Your task to perform on an android device: What's the weather? Image 0: 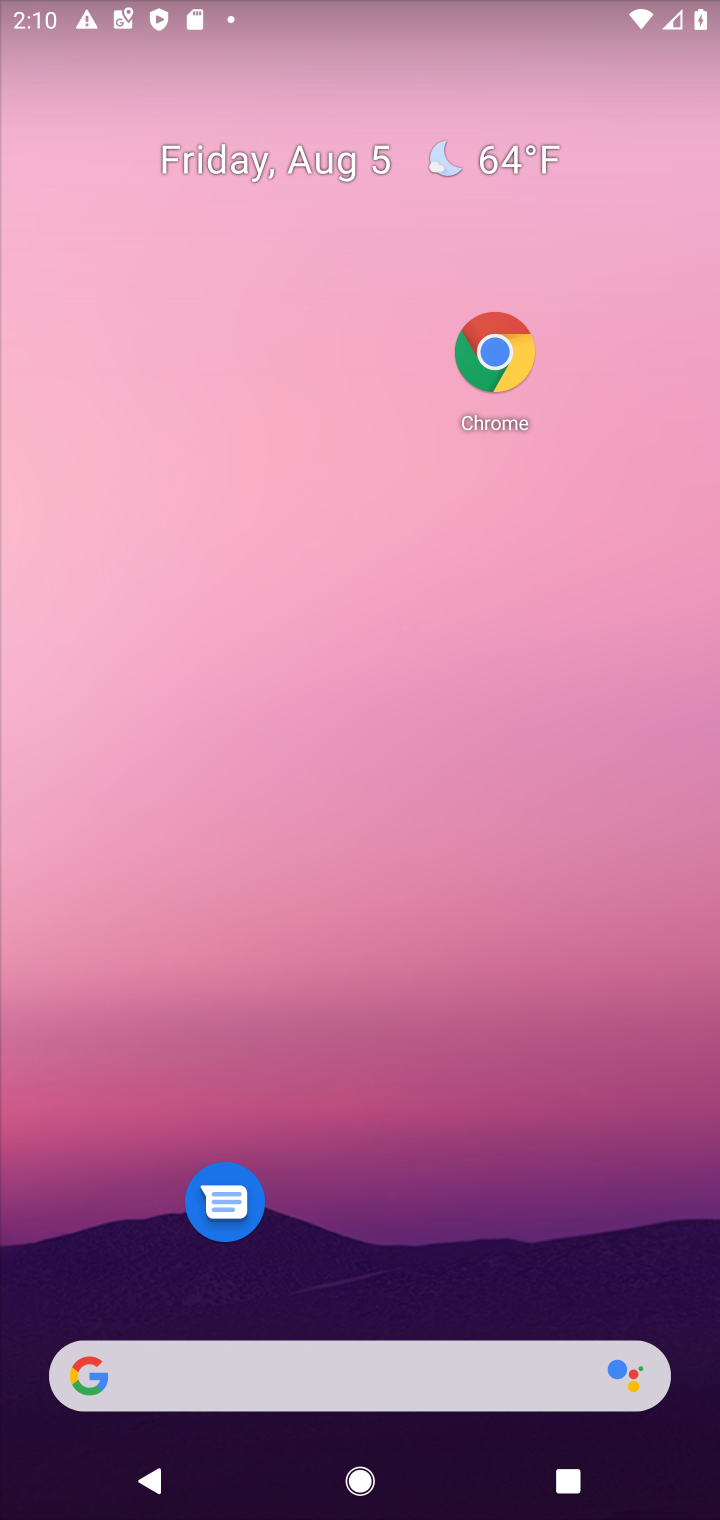
Step 0: click (510, 156)
Your task to perform on an android device: What's the weather? Image 1: 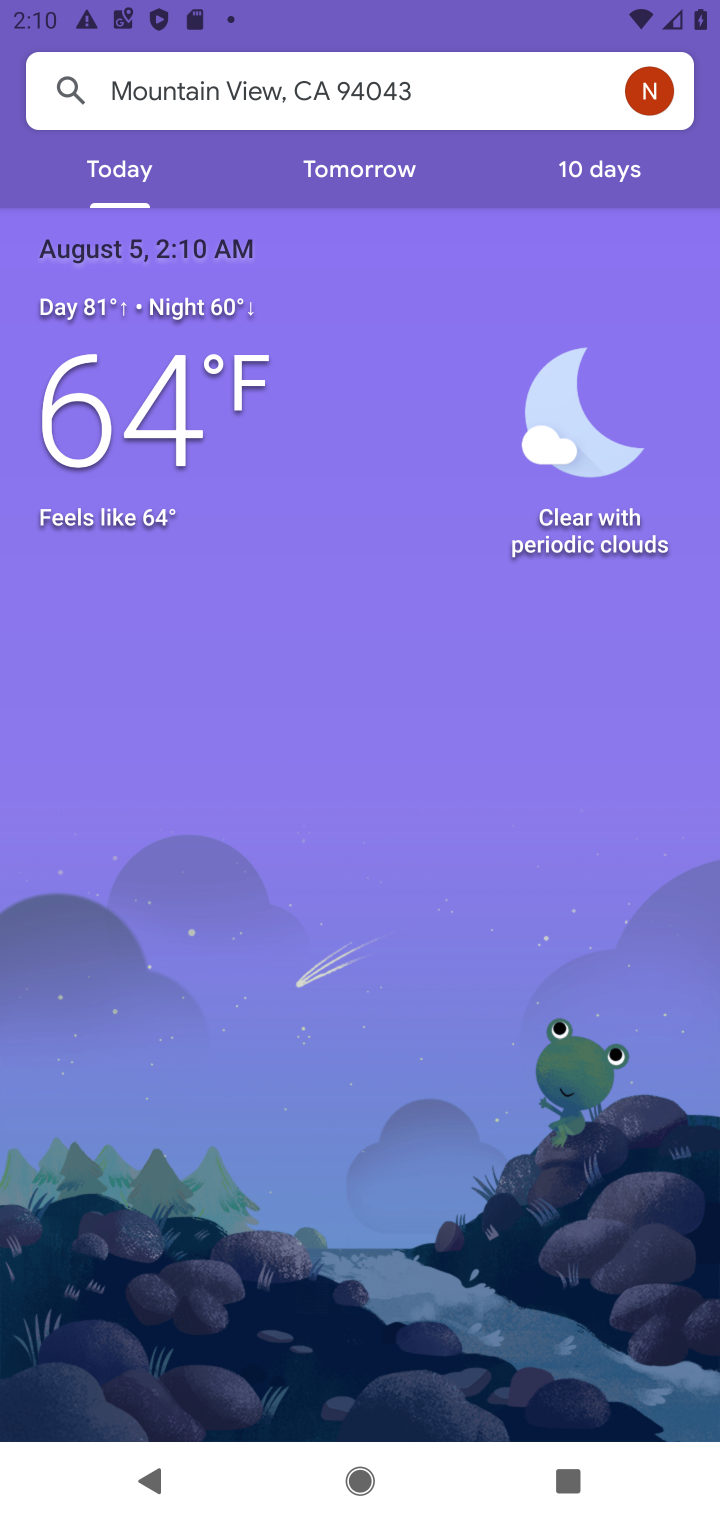
Step 1: task complete